Your task to perform on an android device: Turn off the flashlight Image 0: 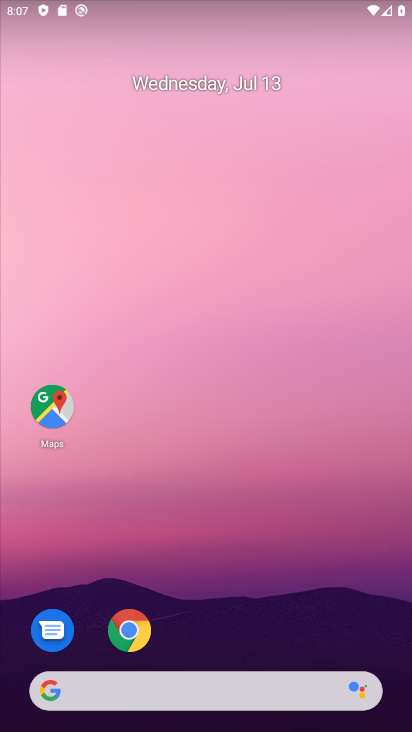
Step 0: drag from (220, 684) to (269, 196)
Your task to perform on an android device: Turn off the flashlight Image 1: 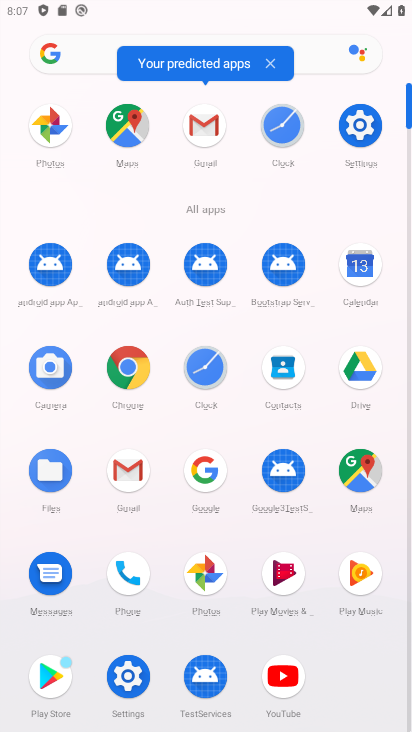
Step 1: click (360, 124)
Your task to perform on an android device: Turn off the flashlight Image 2: 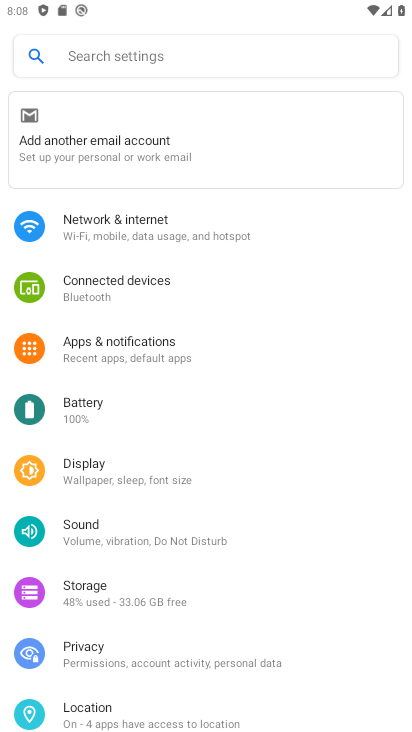
Step 2: click (98, 475)
Your task to perform on an android device: Turn off the flashlight Image 3: 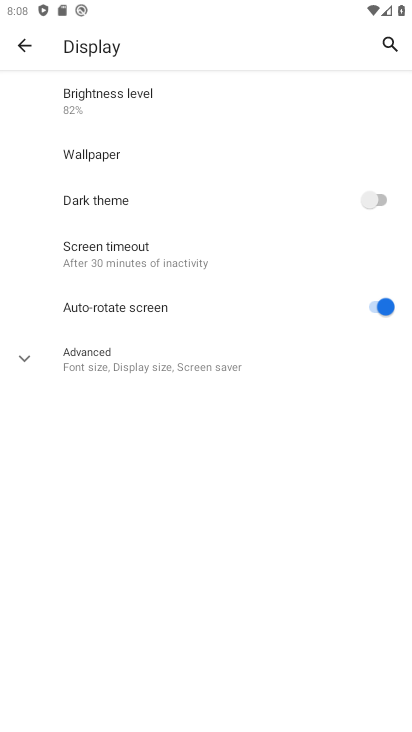
Step 3: click (152, 262)
Your task to perform on an android device: Turn off the flashlight Image 4: 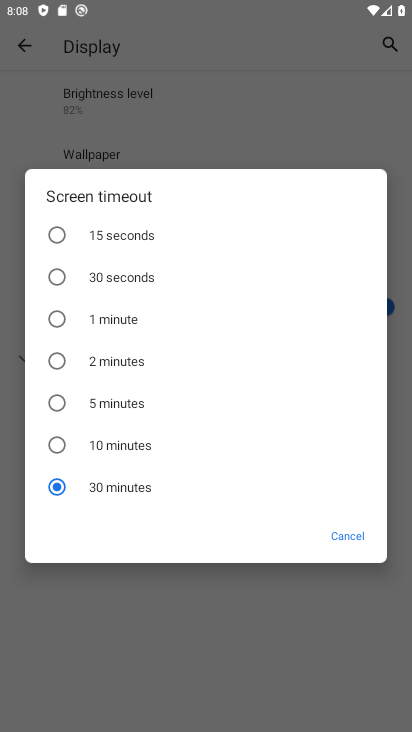
Step 4: click (357, 536)
Your task to perform on an android device: Turn off the flashlight Image 5: 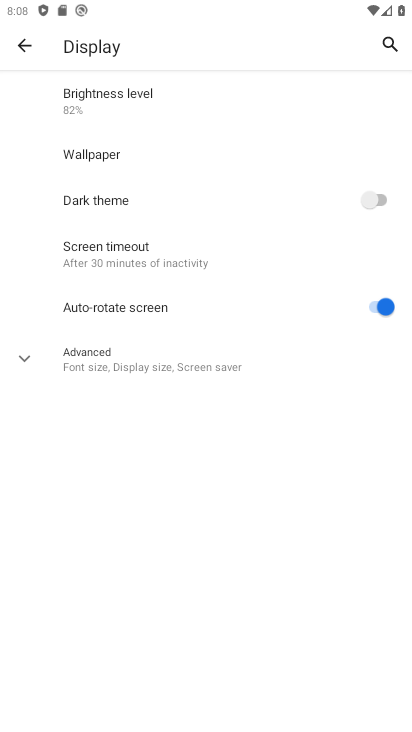
Step 5: click (188, 375)
Your task to perform on an android device: Turn off the flashlight Image 6: 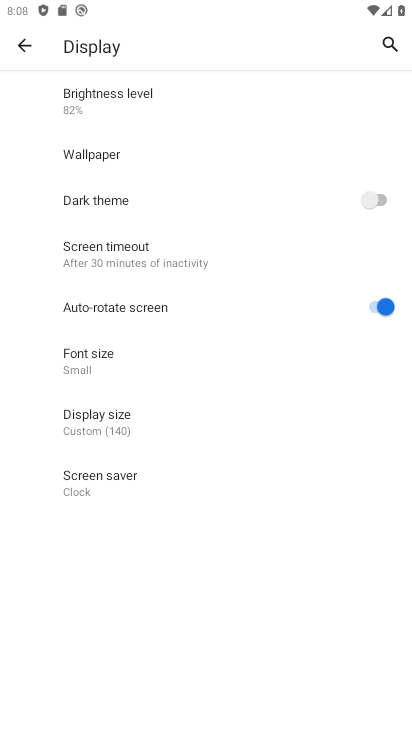
Step 6: click (132, 474)
Your task to perform on an android device: Turn off the flashlight Image 7: 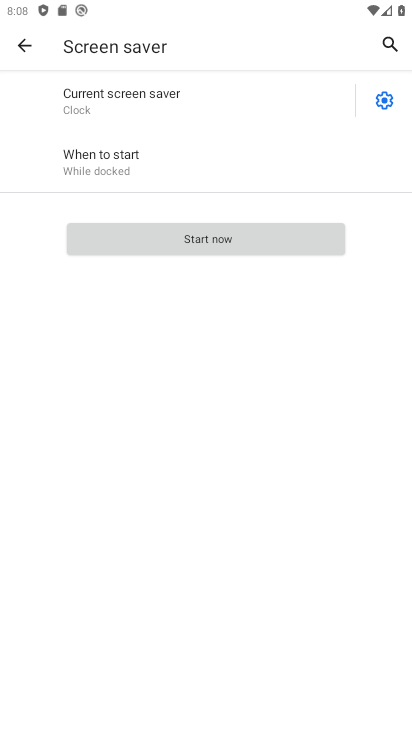
Step 7: click (388, 95)
Your task to perform on an android device: Turn off the flashlight Image 8: 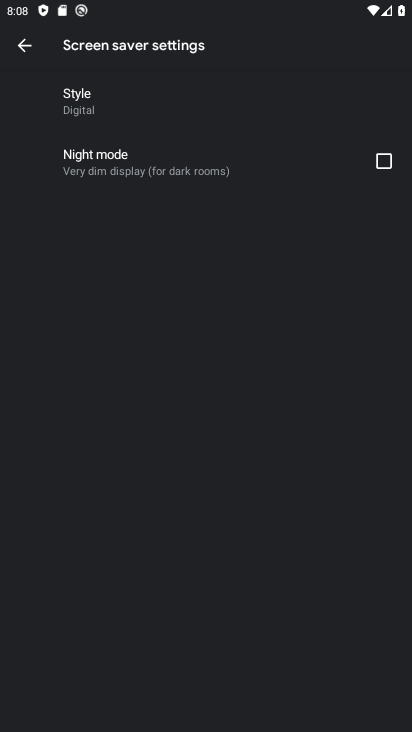
Step 8: task complete